Your task to perform on an android device: find which apps use the phone's location Image 0: 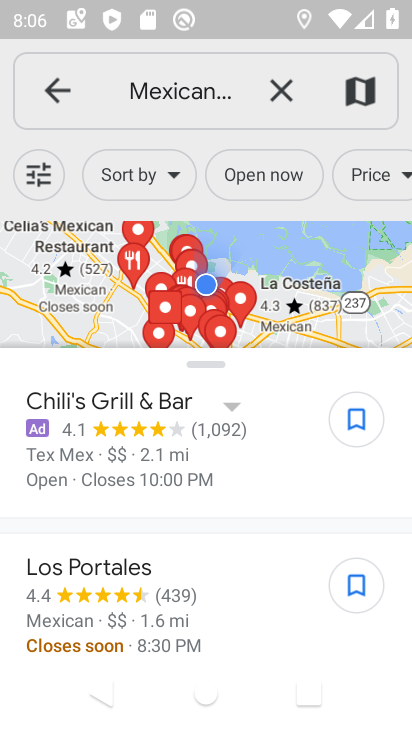
Step 0: press home button
Your task to perform on an android device: find which apps use the phone's location Image 1: 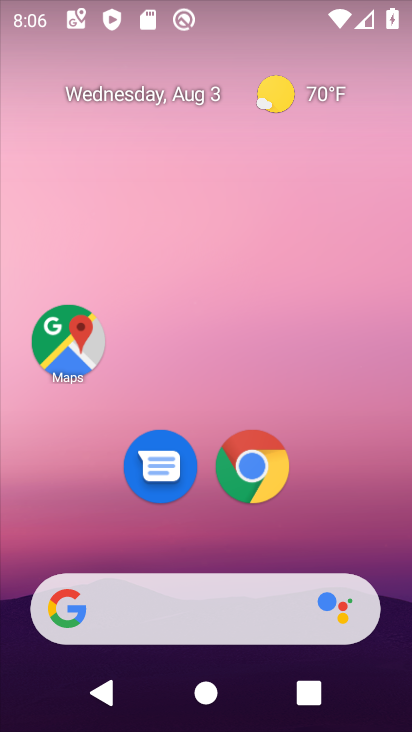
Step 1: drag from (334, 474) to (335, 42)
Your task to perform on an android device: find which apps use the phone's location Image 2: 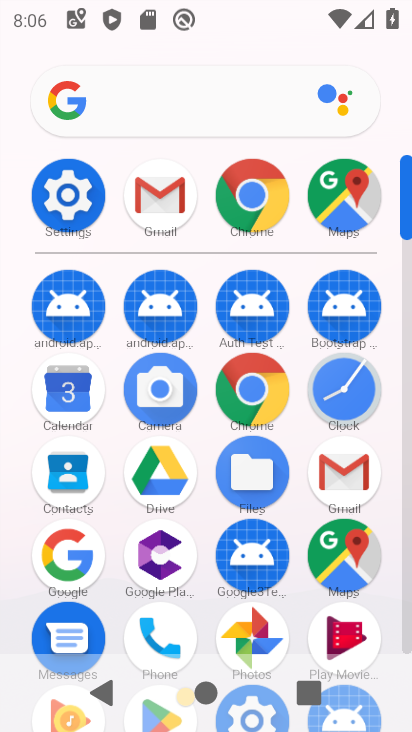
Step 2: drag from (199, 519) to (255, 179)
Your task to perform on an android device: find which apps use the phone's location Image 3: 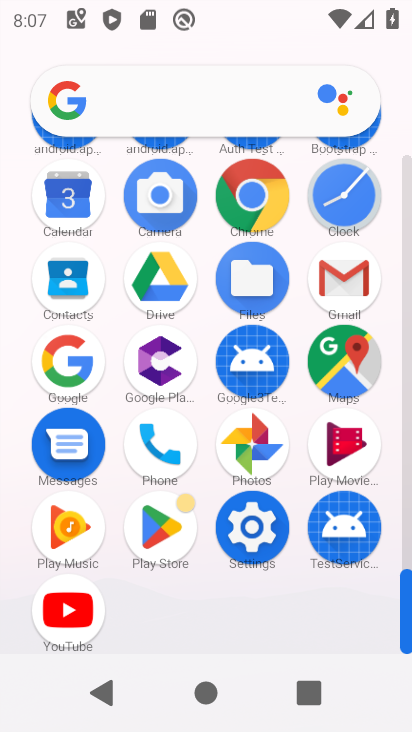
Step 3: click (261, 548)
Your task to perform on an android device: find which apps use the phone's location Image 4: 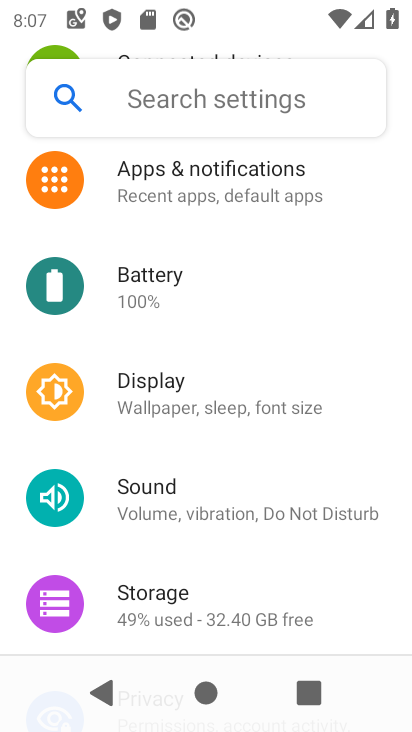
Step 4: drag from (217, 511) to (359, 136)
Your task to perform on an android device: find which apps use the phone's location Image 5: 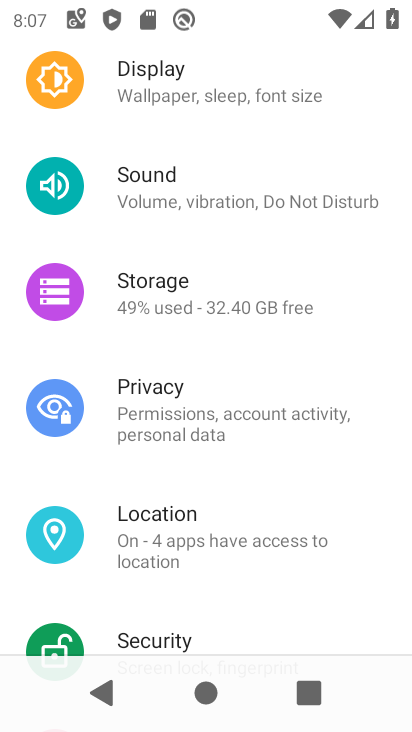
Step 5: click (207, 534)
Your task to perform on an android device: find which apps use the phone's location Image 6: 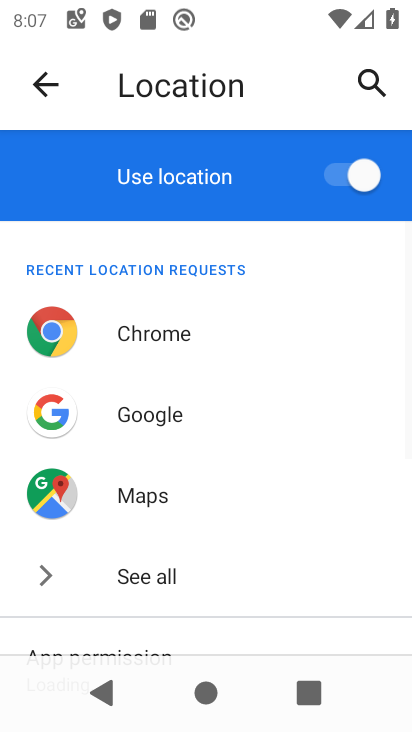
Step 6: drag from (300, 261) to (319, 216)
Your task to perform on an android device: find which apps use the phone's location Image 7: 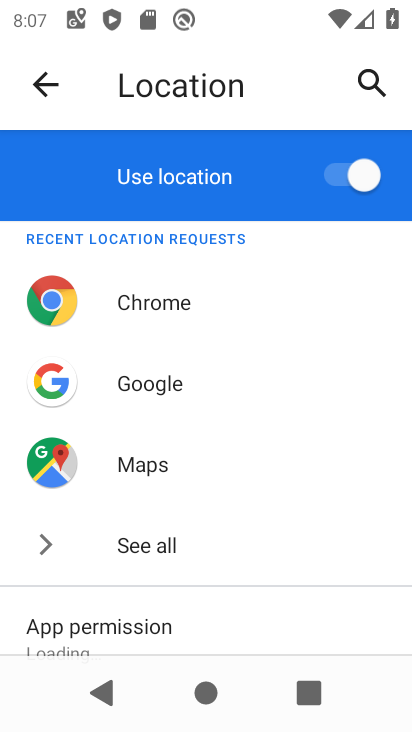
Step 7: drag from (328, 580) to (362, 328)
Your task to perform on an android device: find which apps use the phone's location Image 8: 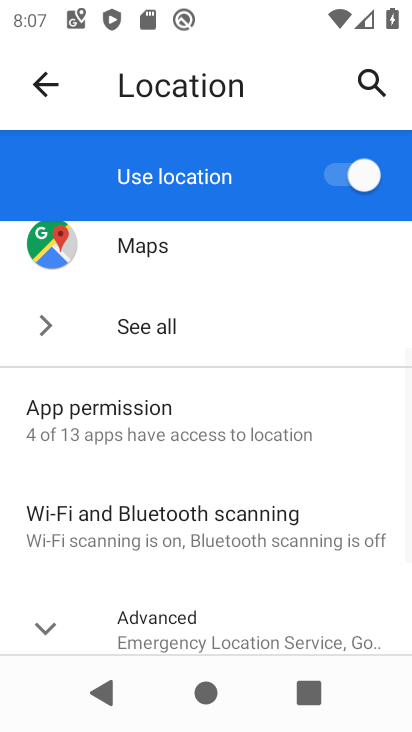
Step 8: click (197, 432)
Your task to perform on an android device: find which apps use the phone's location Image 9: 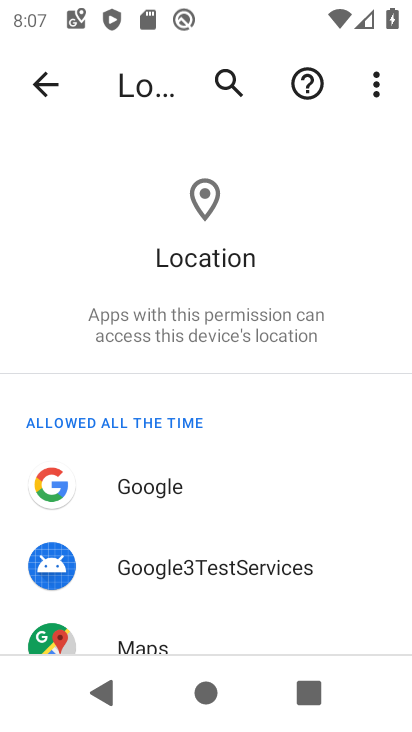
Step 9: task complete